Your task to perform on an android device: Search for sushi restaurants on Maps Image 0: 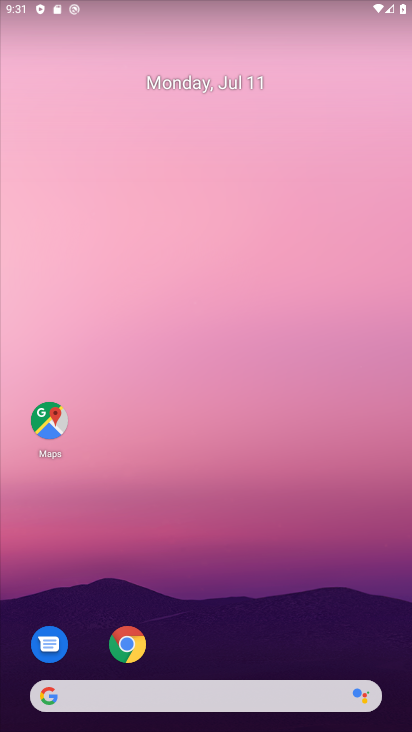
Step 0: click (46, 421)
Your task to perform on an android device: Search for sushi restaurants on Maps Image 1: 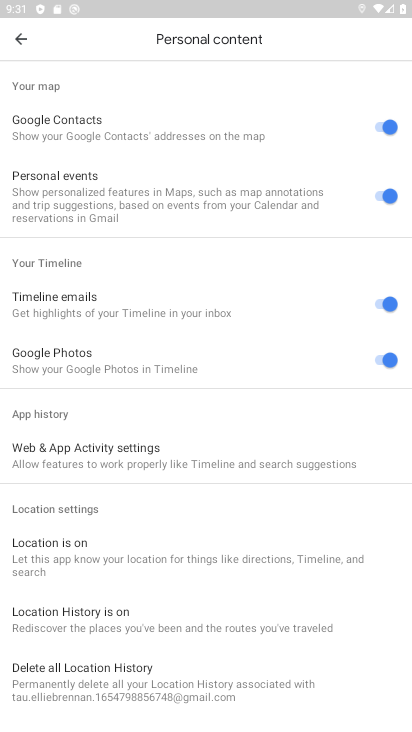
Step 1: press home button
Your task to perform on an android device: Search for sushi restaurants on Maps Image 2: 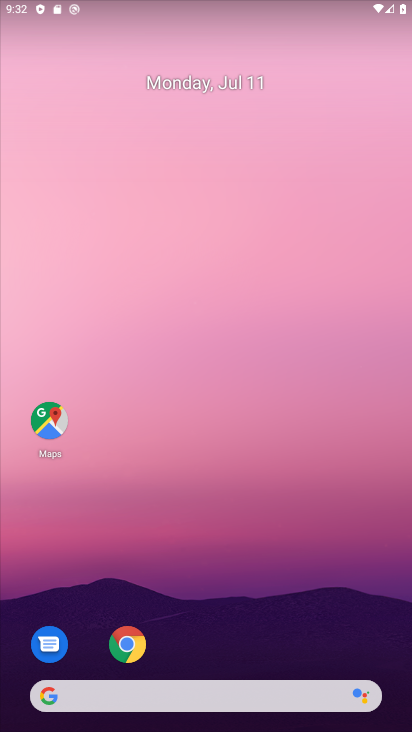
Step 2: click (51, 414)
Your task to perform on an android device: Search for sushi restaurants on Maps Image 3: 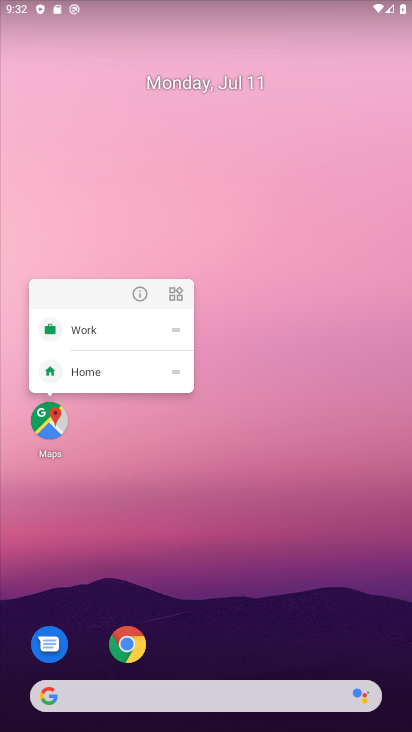
Step 3: click (51, 414)
Your task to perform on an android device: Search for sushi restaurants on Maps Image 4: 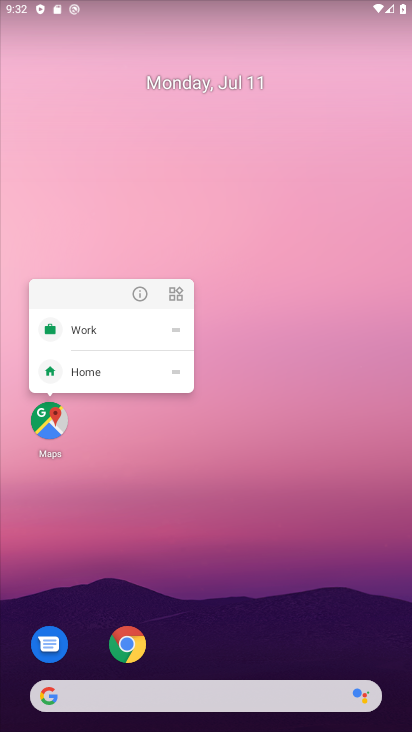
Step 4: click (46, 417)
Your task to perform on an android device: Search for sushi restaurants on Maps Image 5: 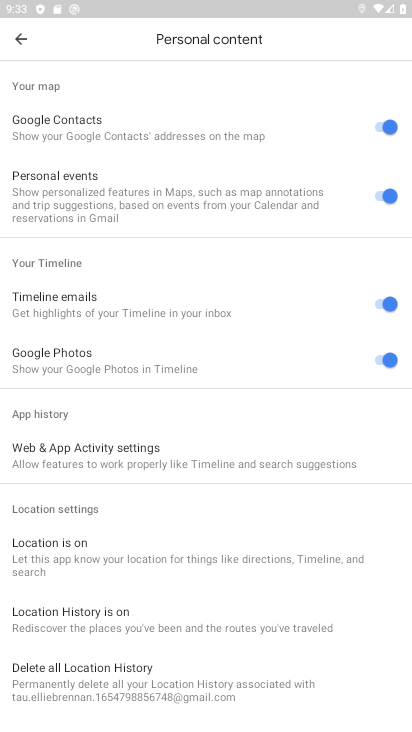
Step 5: drag from (166, 585) to (175, 485)
Your task to perform on an android device: Search for sushi restaurants on Maps Image 6: 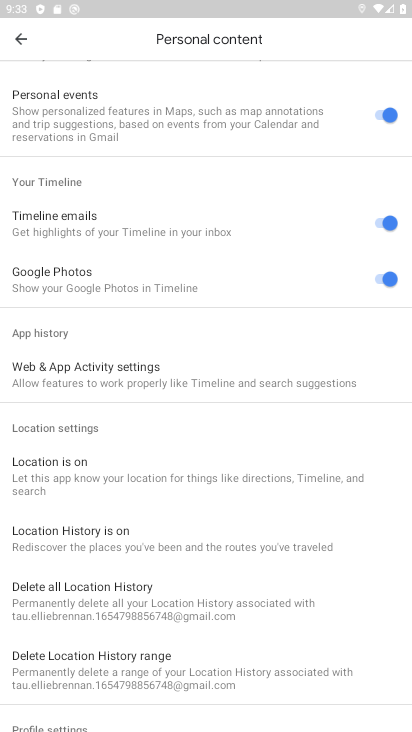
Step 6: press home button
Your task to perform on an android device: Search for sushi restaurants on Maps Image 7: 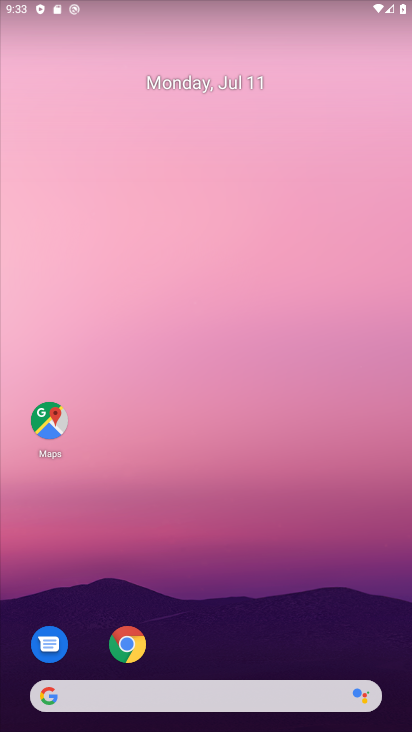
Step 7: click (50, 418)
Your task to perform on an android device: Search for sushi restaurants on Maps Image 8: 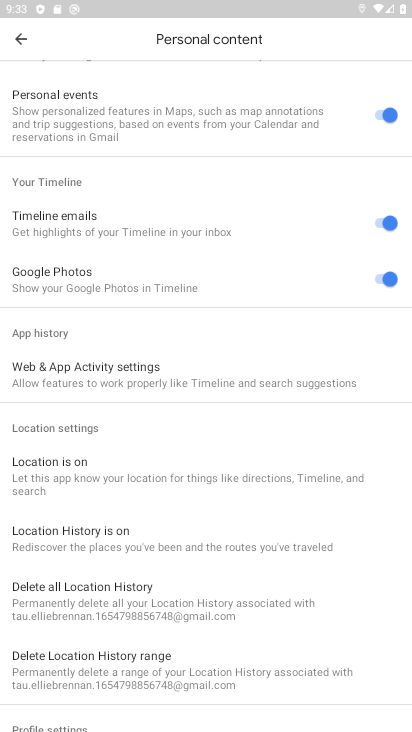
Step 8: click (20, 36)
Your task to perform on an android device: Search for sushi restaurants on Maps Image 9: 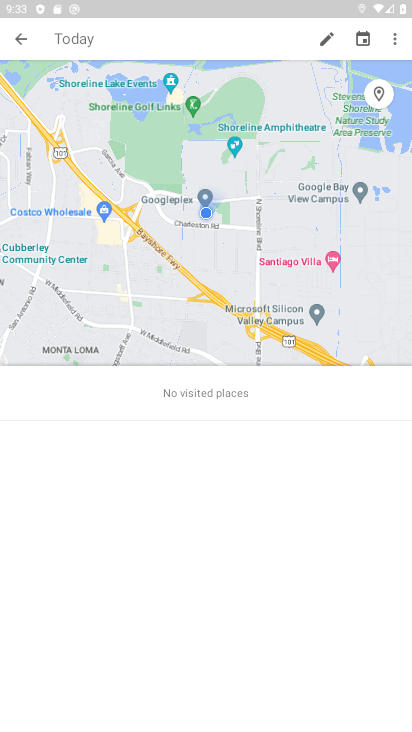
Step 9: click (25, 37)
Your task to perform on an android device: Search for sushi restaurants on Maps Image 10: 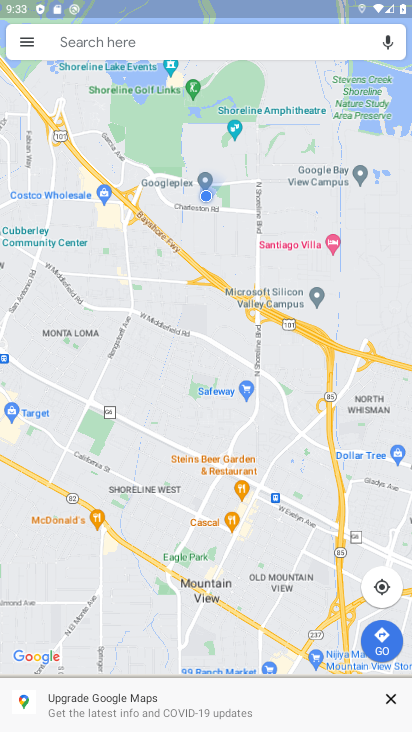
Step 10: click (119, 37)
Your task to perform on an android device: Search for sushi restaurants on Maps Image 11: 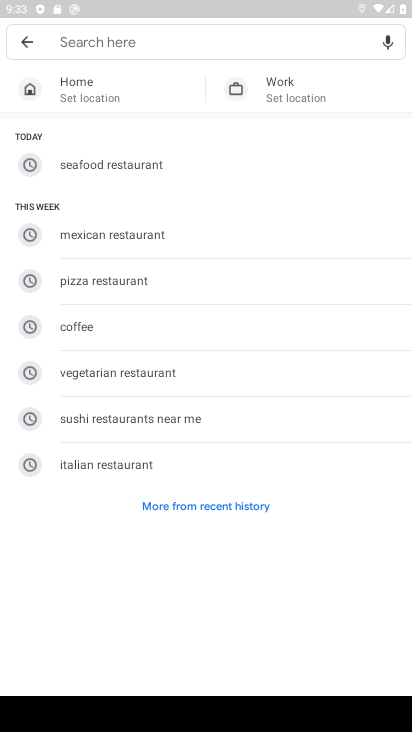
Step 11: type "sushi"
Your task to perform on an android device: Search for sushi restaurants on Maps Image 12: 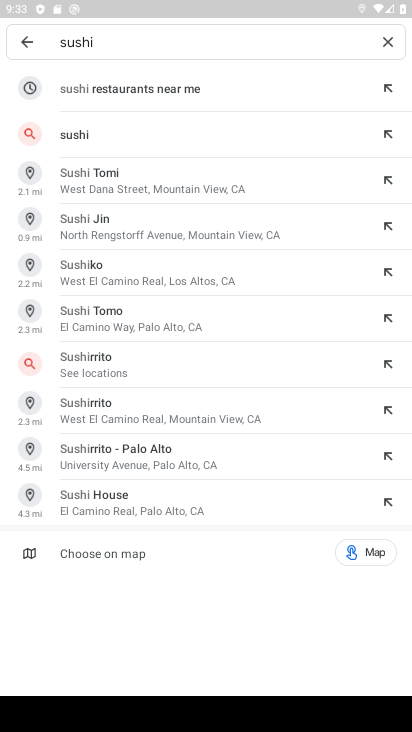
Step 12: click (153, 95)
Your task to perform on an android device: Search for sushi restaurants on Maps Image 13: 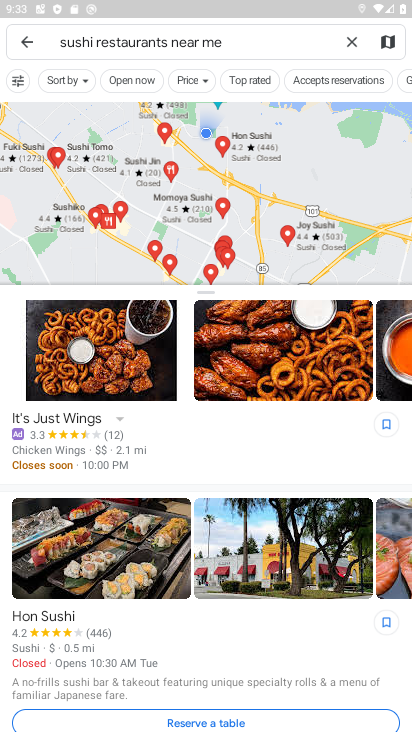
Step 13: task complete